Your task to perform on an android device: toggle location history Image 0: 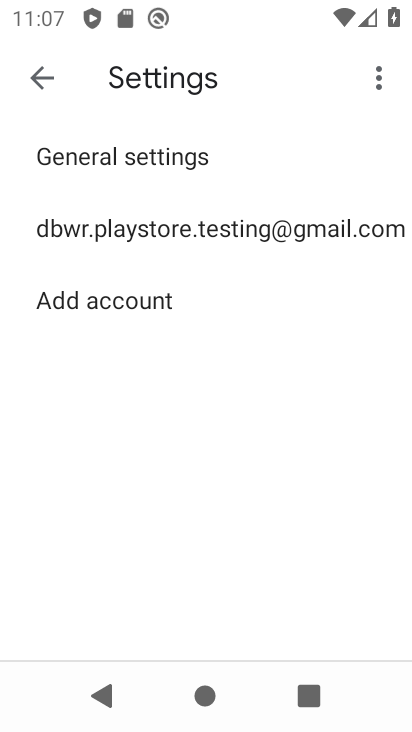
Step 0: press home button
Your task to perform on an android device: toggle location history Image 1: 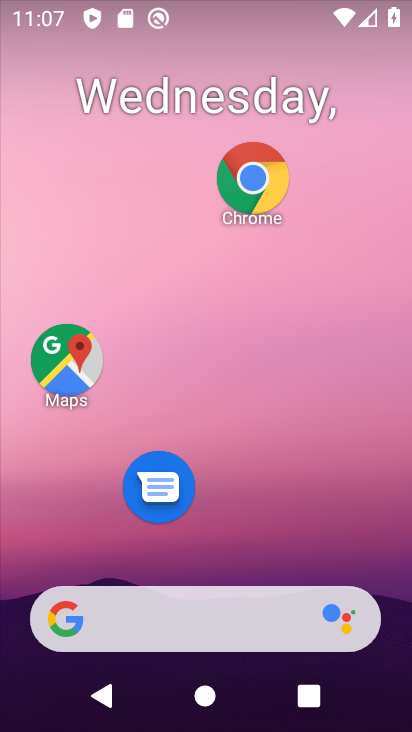
Step 1: drag from (280, 290) to (280, 47)
Your task to perform on an android device: toggle location history Image 2: 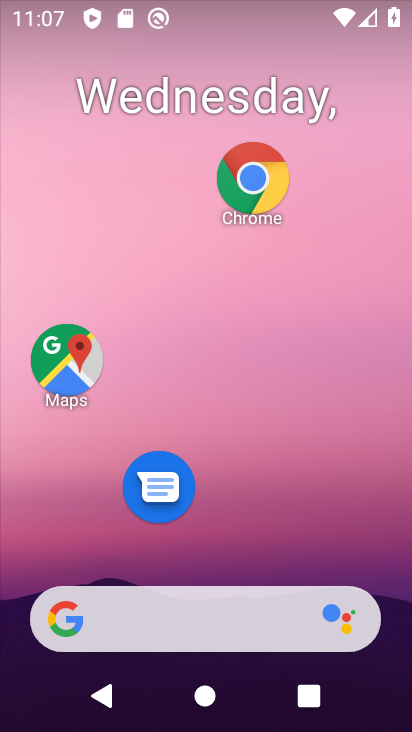
Step 2: drag from (303, 504) to (300, 13)
Your task to perform on an android device: toggle location history Image 3: 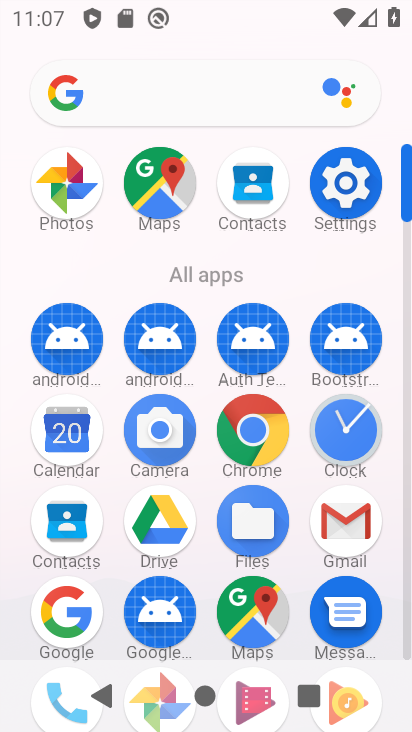
Step 3: click (345, 173)
Your task to perform on an android device: toggle location history Image 4: 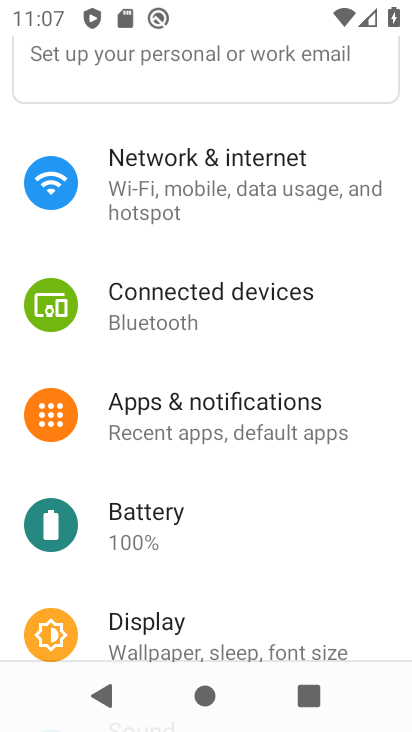
Step 4: drag from (282, 552) to (270, 183)
Your task to perform on an android device: toggle location history Image 5: 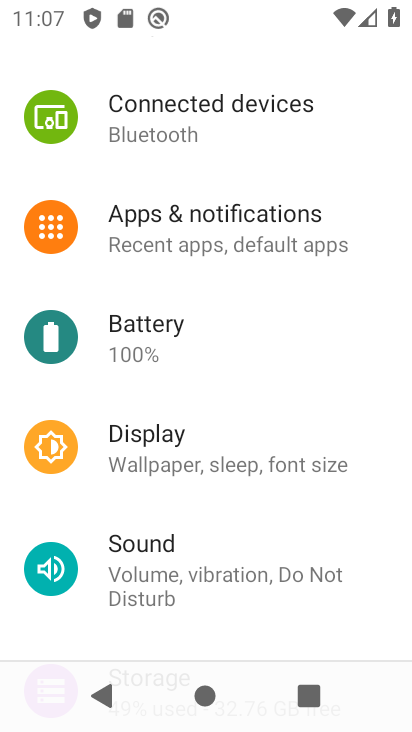
Step 5: drag from (256, 489) to (271, 163)
Your task to perform on an android device: toggle location history Image 6: 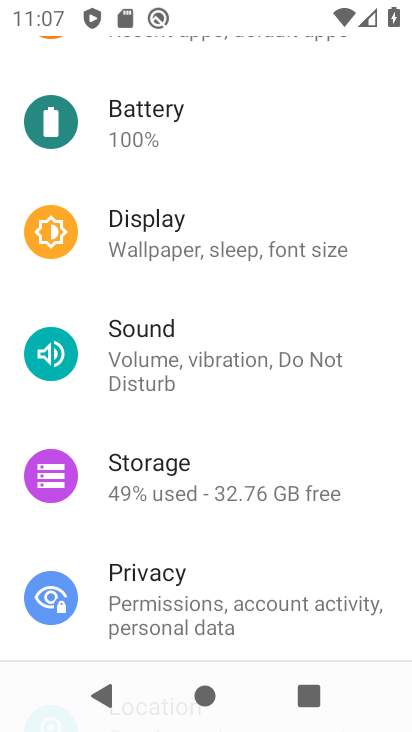
Step 6: drag from (251, 536) to (290, 156)
Your task to perform on an android device: toggle location history Image 7: 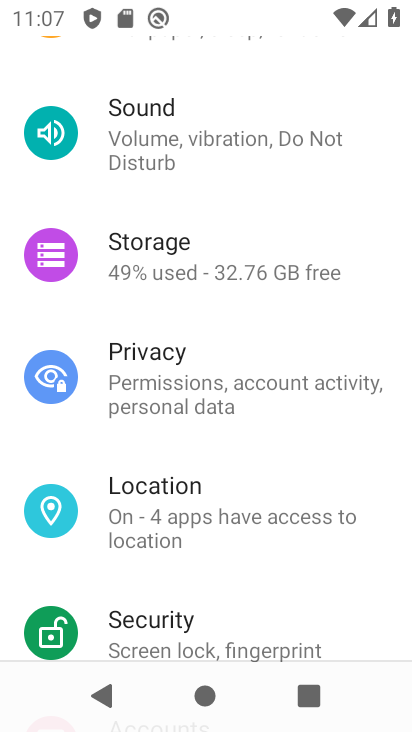
Step 7: click (227, 515)
Your task to perform on an android device: toggle location history Image 8: 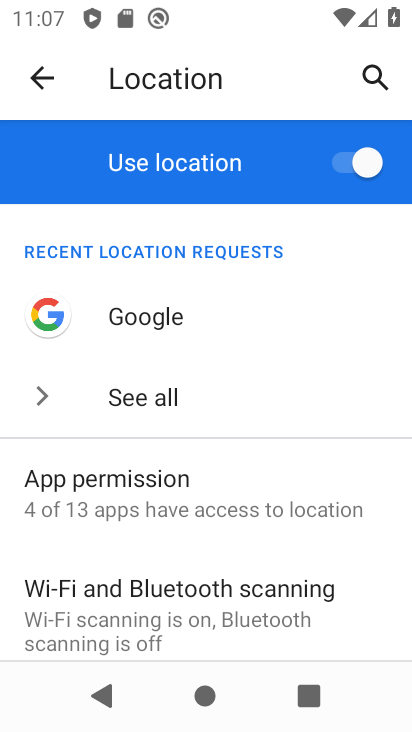
Step 8: drag from (358, 544) to (357, 260)
Your task to perform on an android device: toggle location history Image 9: 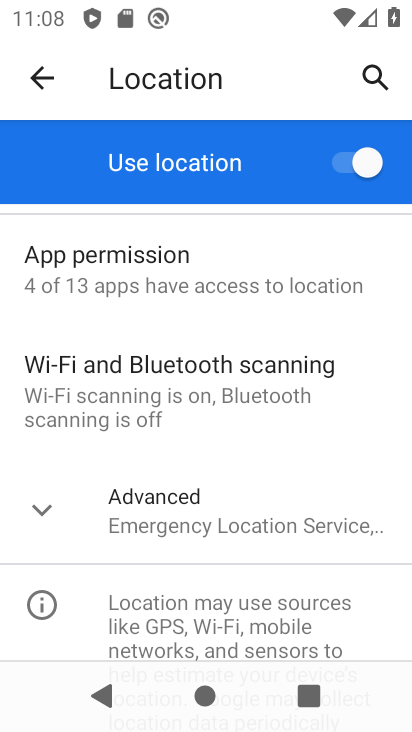
Step 9: click (287, 522)
Your task to perform on an android device: toggle location history Image 10: 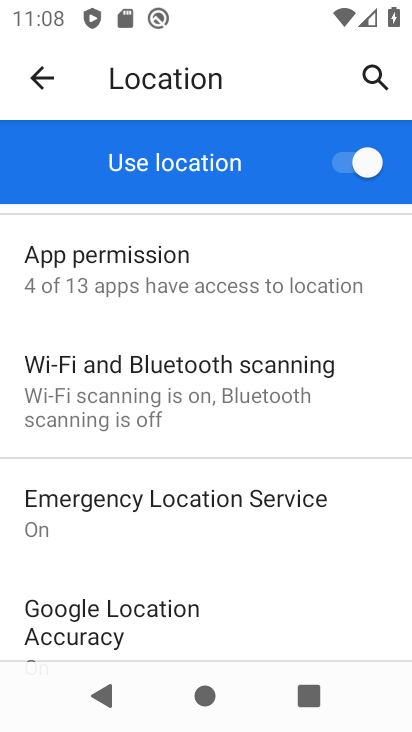
Step 10: drag from (295, 581) to (293, 287)
Your task to perform on an android device: toggle location history Image 11: 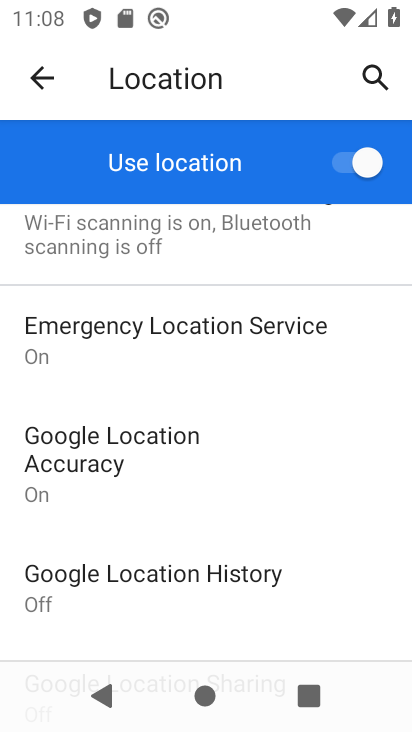
Step 11: click (203, 575)
Your task to perform on an android device: toggle location history Image 12: 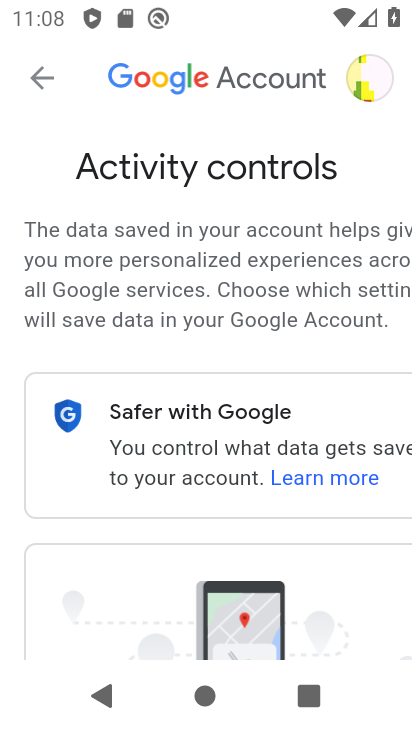
Step 12: drag from (309, 469) to (294, 196)
Your task to perform on an android device: toggle location history Image 13: 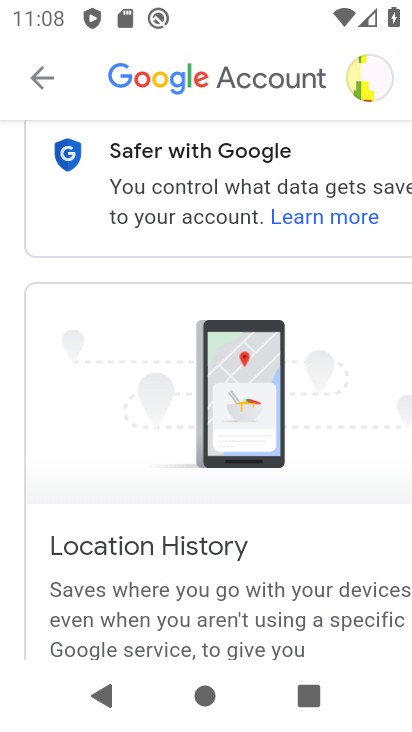
Step 13: drag from (296, 554) to (294, 222)
Your task to perform on an android device: toggle location history Image 14: 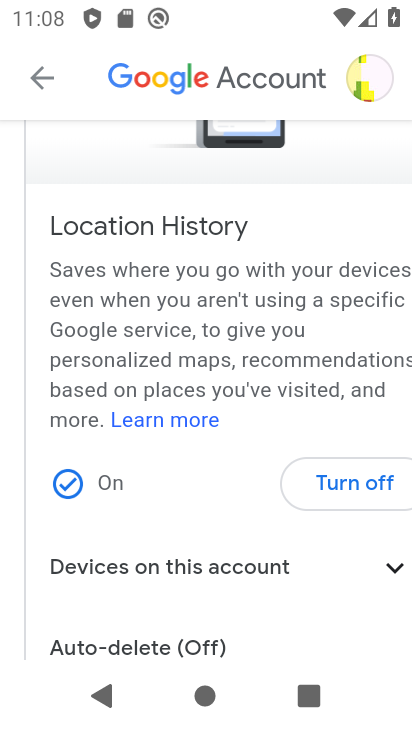
Step 14: click (358, 481)
Your task to perform on an android device: toggle location history Image 15: 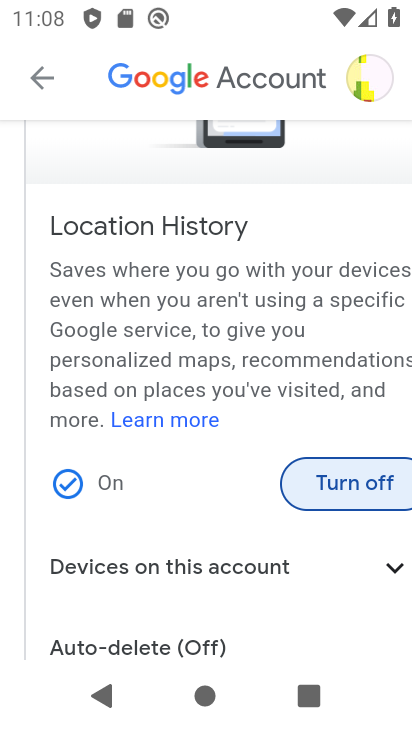
Step 15: click (358, 481)
Your task to perform on an android device: toggle location history Image 16: 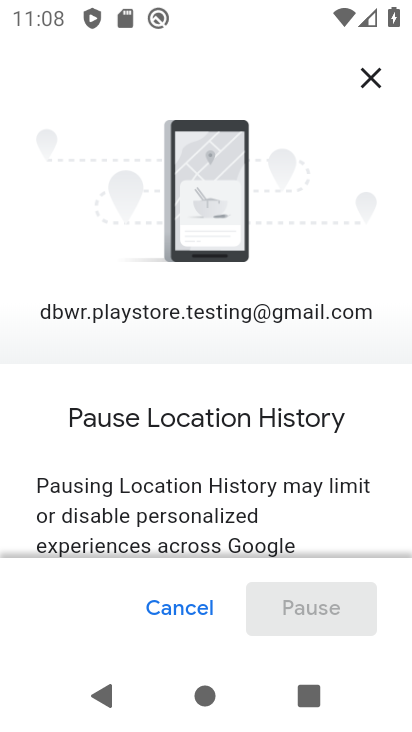
Step 16: drag from (289, 430) to (287, 160)
Your task to perform on an android device: toggle location history Image 17: 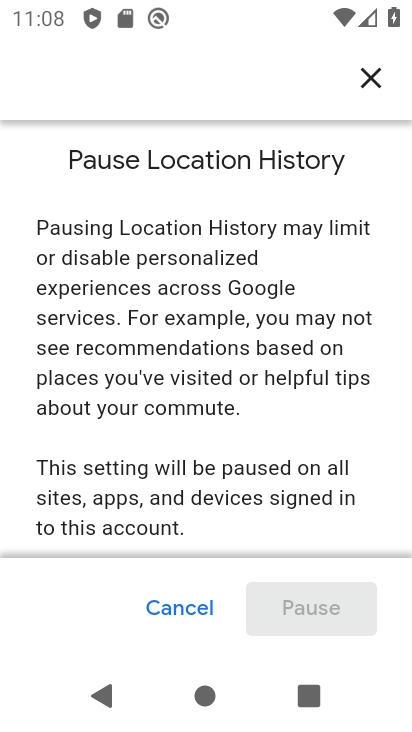
Step 17: drag from (260, 445) to (265, 143)
Your task to perform on an android device: toggle location history Image 18: 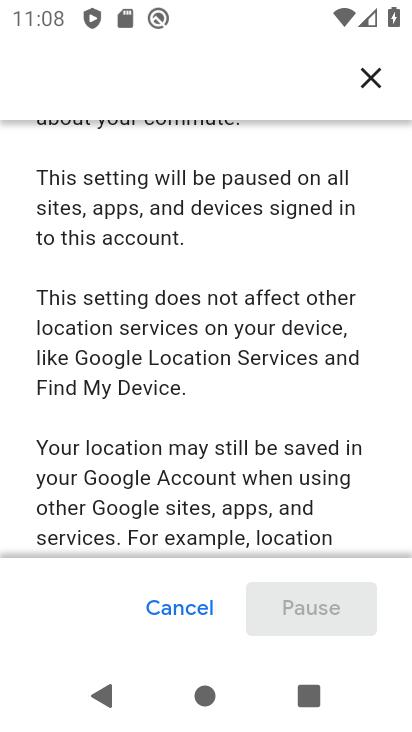
Step 18: drag from (240, 465) to (235, 138)
Your task to perform on an android device: toggle location history Image 19: 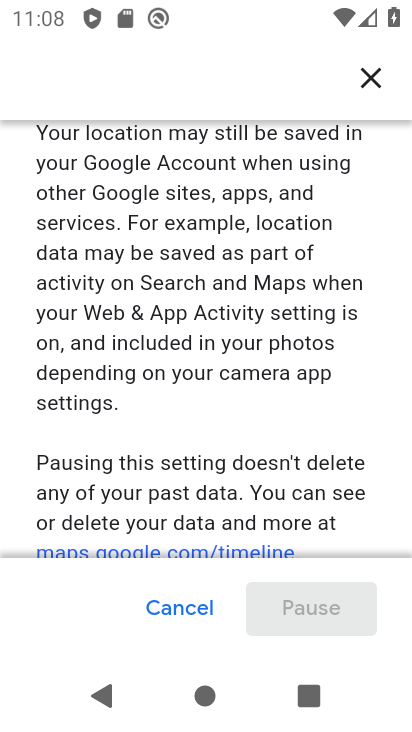
Step 19: drag from (230, 412) to (227, 131)
Your task to perform on an android device: toggle location history Image 20: 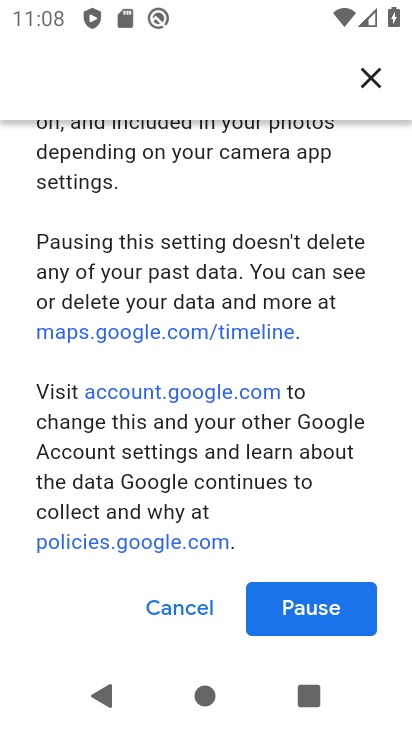
Step 20: click (314, 620)
Your task to perform on an android device: toggle location history Image 21: 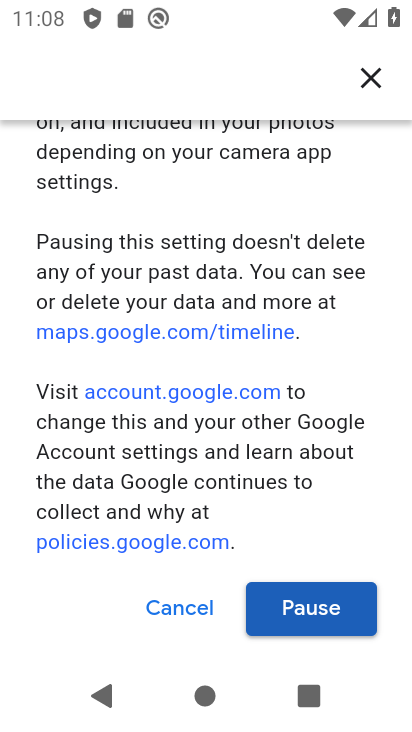
Step 21: click (311, 607)
Your task to perform on an android device: toggle location history Image 22: 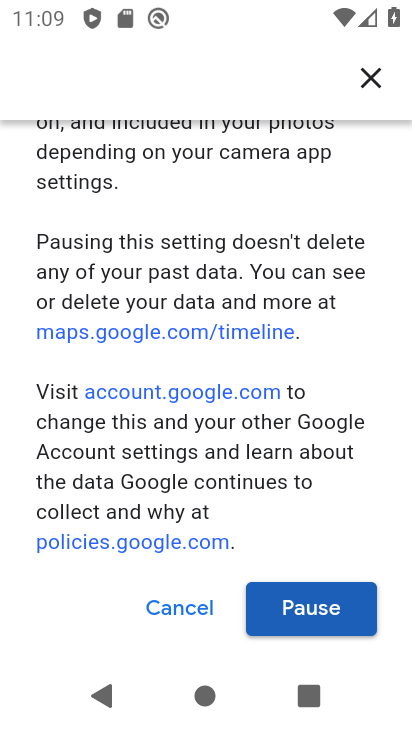
Step 22: click (323, 605)
Your task to perform on an android device: toggle location history Image 23: 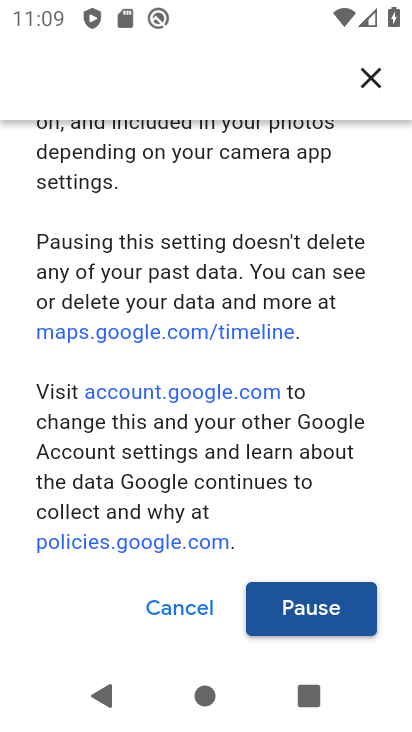
Step 23: drag from (317, 548) to (305, 185)
Your task to perform on an android device: toggle location history Image 24: 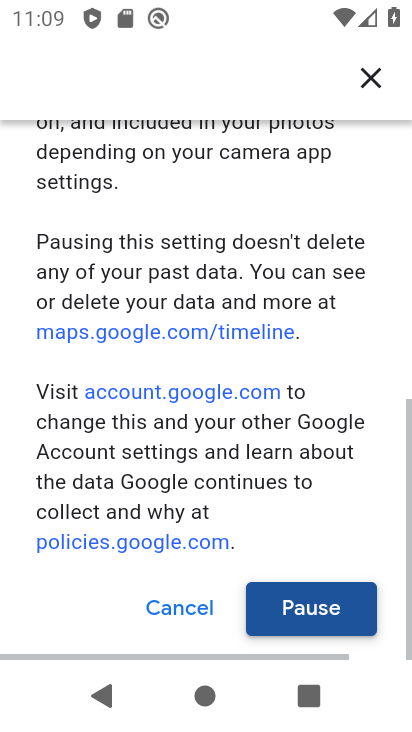
Step 24: click (350, 603)
Your task to perform on an android device: toggle location history Image 25: 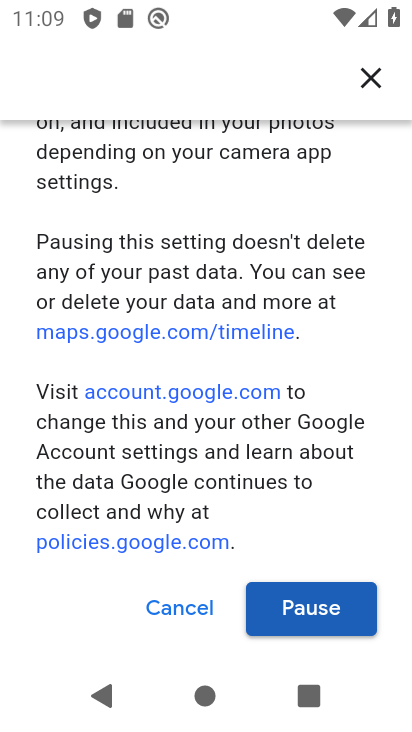
Step 25: click (320, 604)
Your task to perform on an android device: toggle location history Image 26: 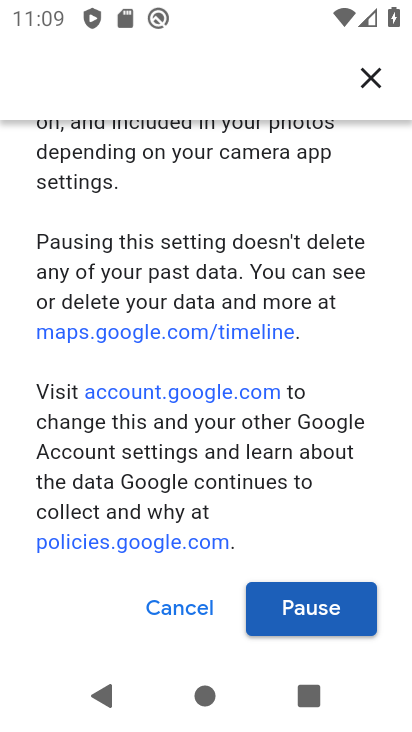
Step 26: click (345, 602)
Your task to perform on an android device: toggle location history Image 27: 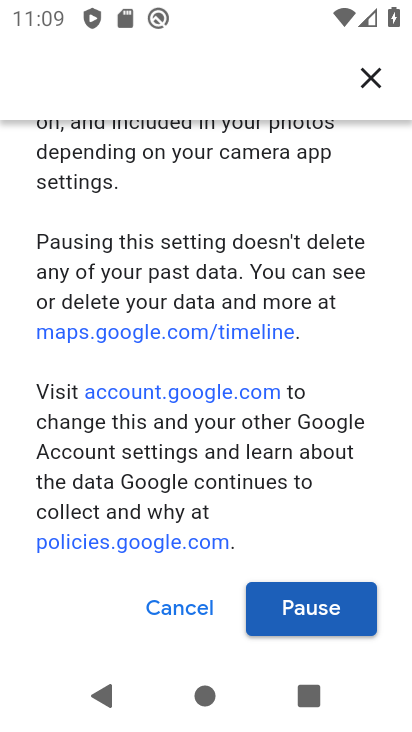
Step 27: drag from (292, 447) to (288, 210)
Your task to perform on an android device: toggle location history Image 28: 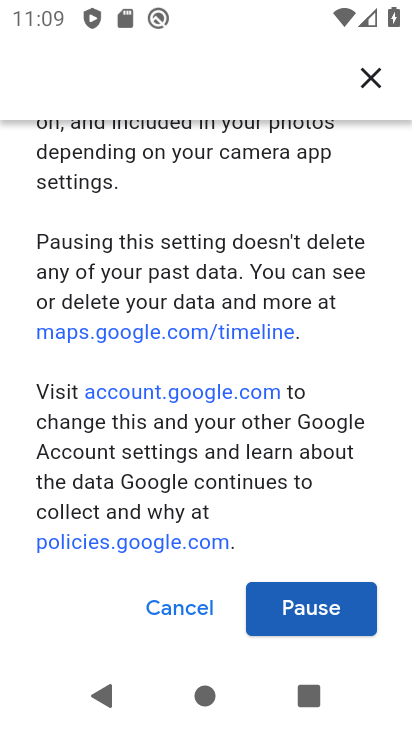
Step 28: click (310, 605)
Your task to perform on an android device: toggle location history Image 29: 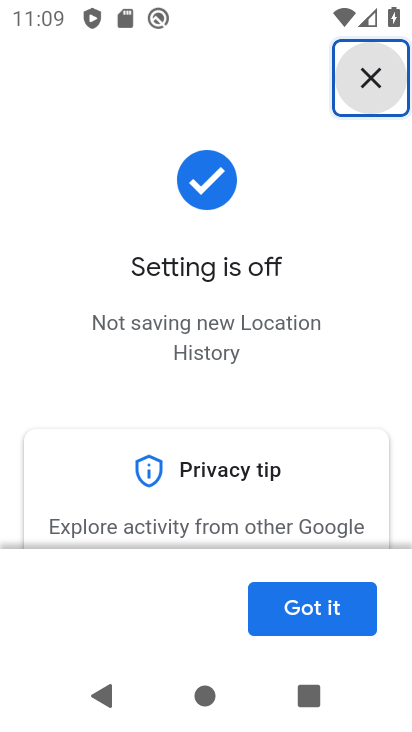
Step 29: click (303, 606)
Your task to perform on an android device: toggle location history Image 30: 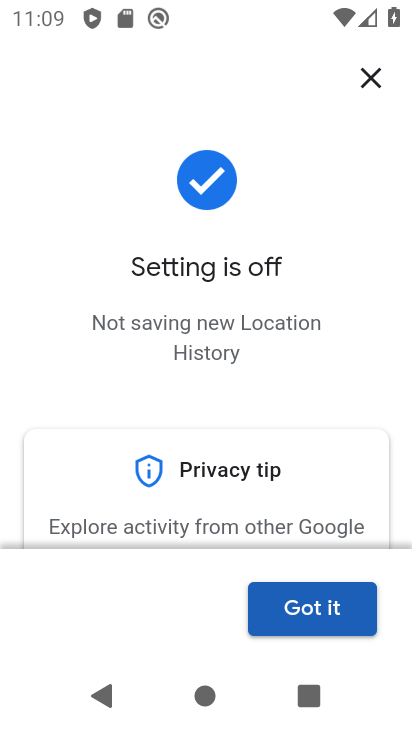
Step 30: task complete